Your task to perform on an android device: change notifications settings Image 0: 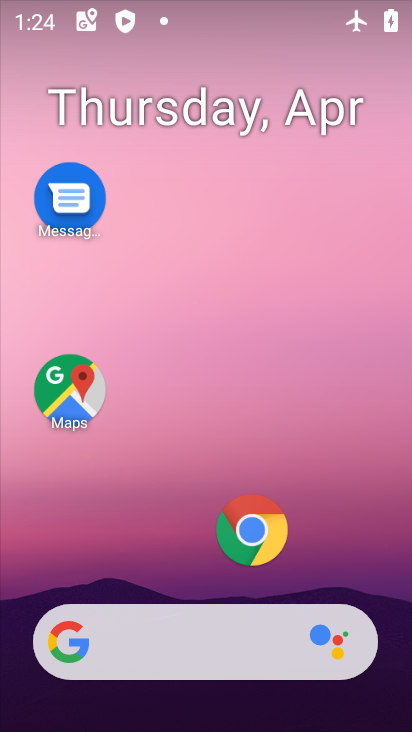
Step 0: drag from (197, 593) to (248, 2)
Your task to perform on an android device: change notifications settings Image 1: 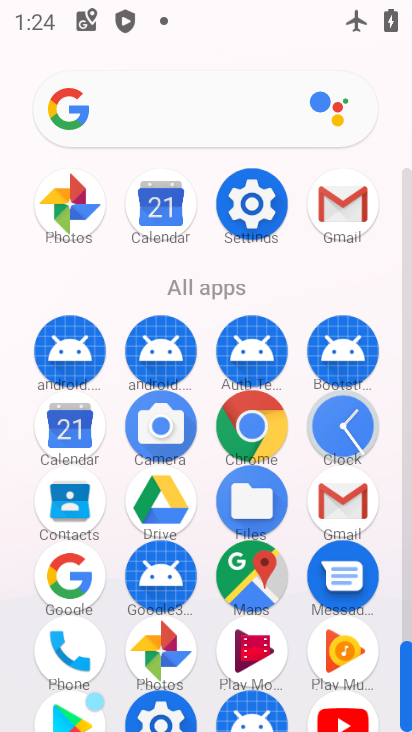
Step 1: click (251, 208)
Your task to perform on an android device: change notifications settings Image 2: 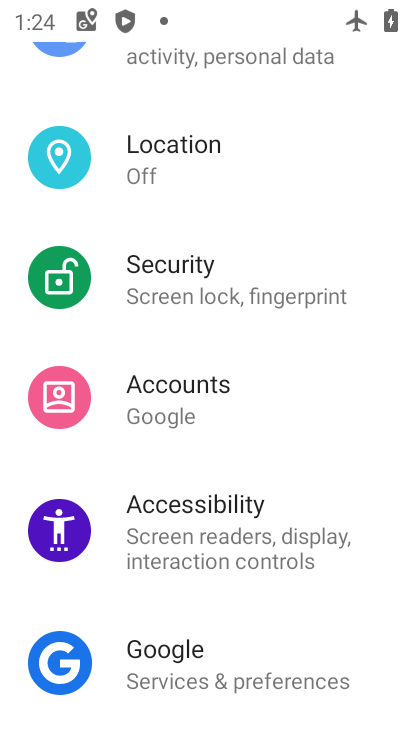
Step 2: drag from (251, 208) to (234, 568)
Your task to perform on an android device: change notifications settings Image 3: 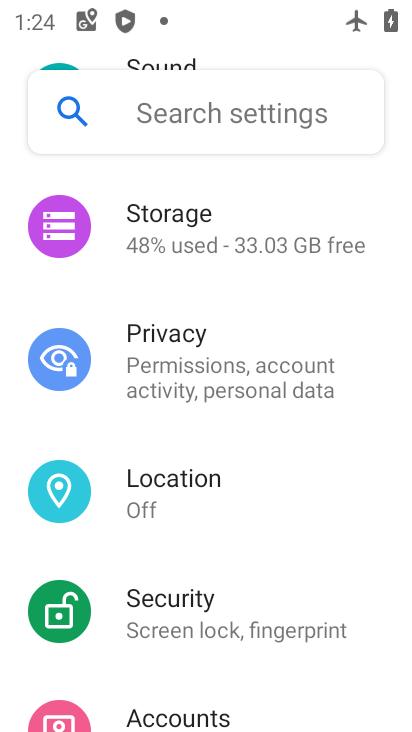
Step 3: drag from (236, 321) to (236, 595)
Your task to perform on an android device: change notifications settings Image 4: 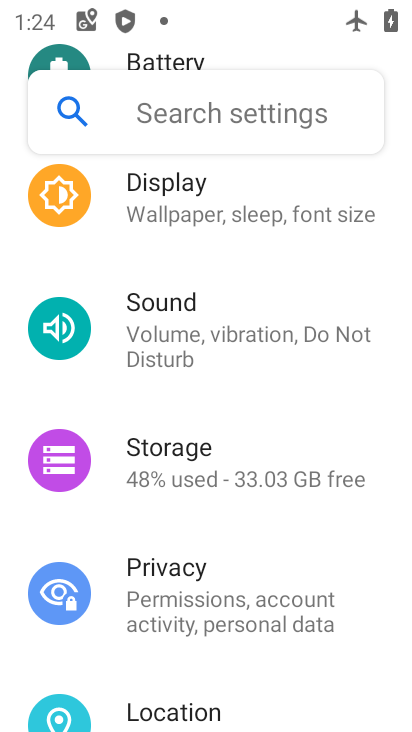
Step 4: drag from (231, 277) to (231, 626)
Your task to perform on an android device: change notifications settings Image 5: 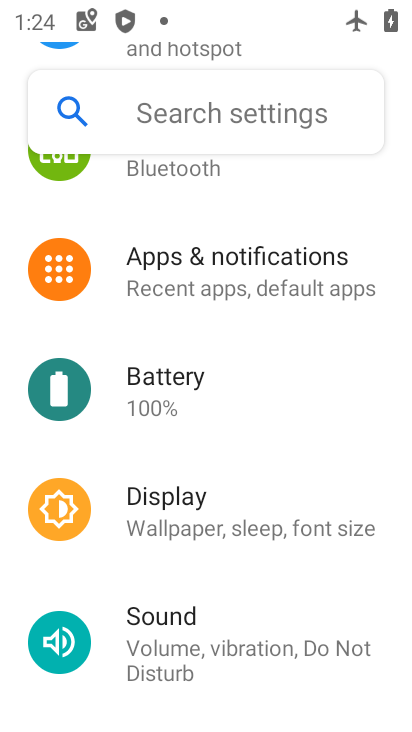
Step 5: click (230, 294)
Your task to perform on an android device: change notifications settings Image 6: 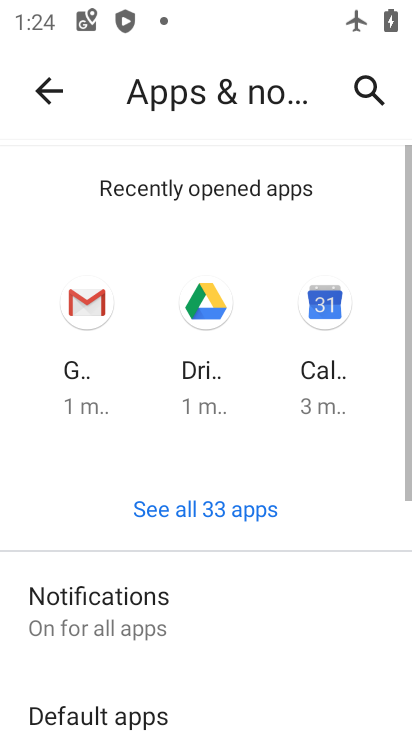
Step 6: click (174, 625)
Your task to perform on an android device: change notifications settings Image 7: 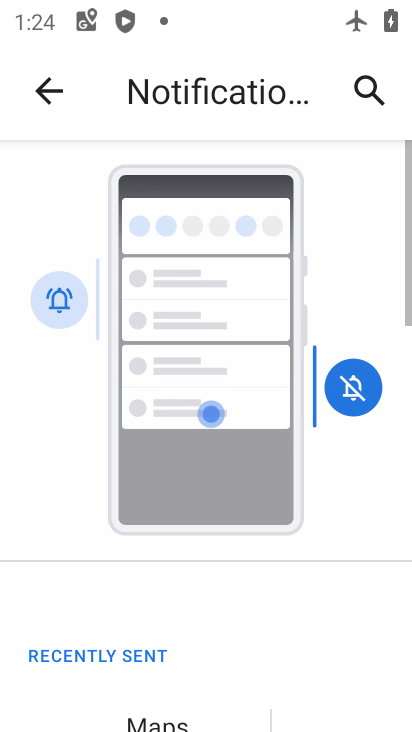
Step 7: drag from (194, 592) to (149, 164)
Your task to perform on an android device: change notifications settings Image 8: 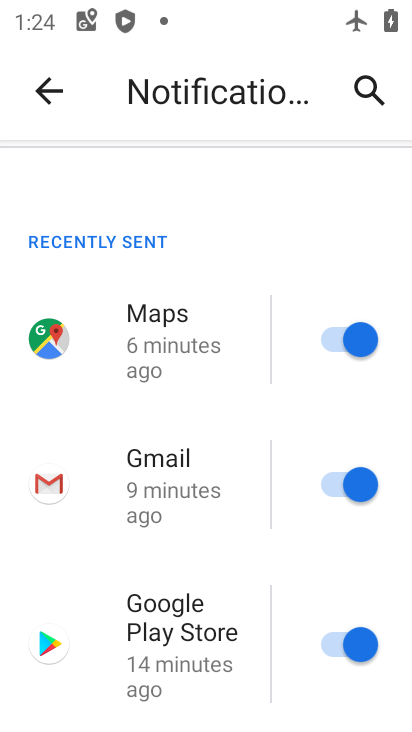
Step 8: drag from (215, 660) to (173, 231)
Your task to perform on an android device: change notifications settings Image 9: 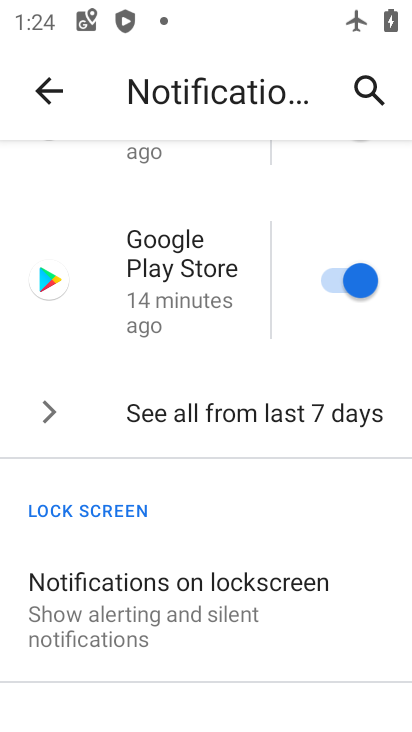
Step 9: click (210, 411)
Your task to perform on an android device: change notifications settings Image 10: 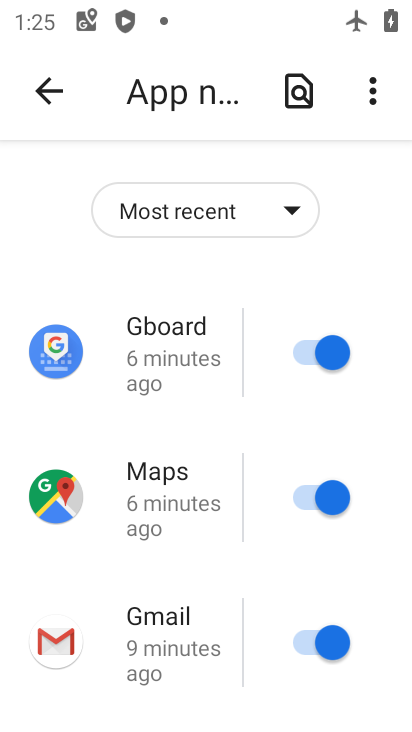
Step 10: click (216, 215)
Your task to perform on an android device: change notifications settings Image 11: 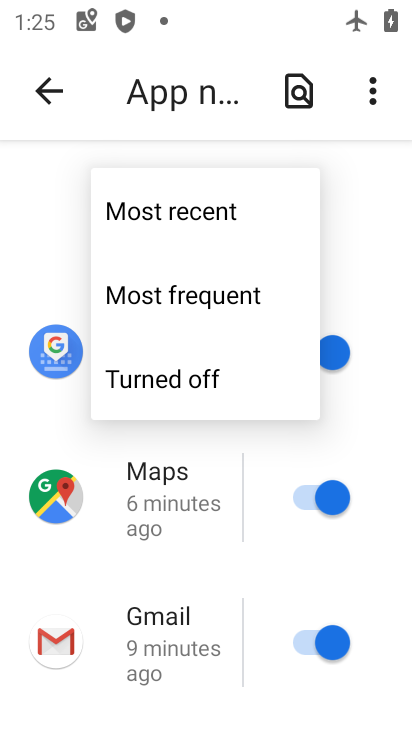
Step 11: click (189, 399)
Your task to perform on an android device: change notifications settings Image 12: 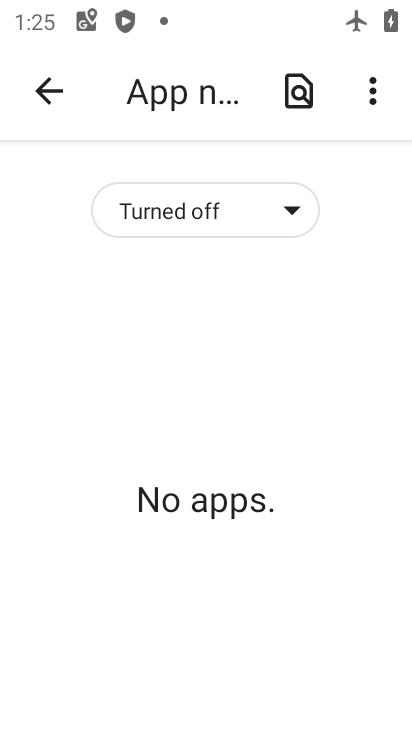
Step 12: task complete